Your task to perform on an android device: Is it going to rain tomorrow? Image 0: 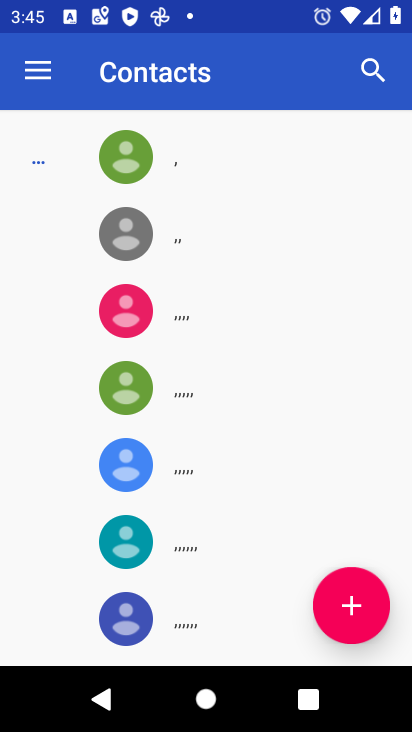
Step 0: press home button
Your task to perform on an android device: Is it going to rain tomorrow? Image 1: 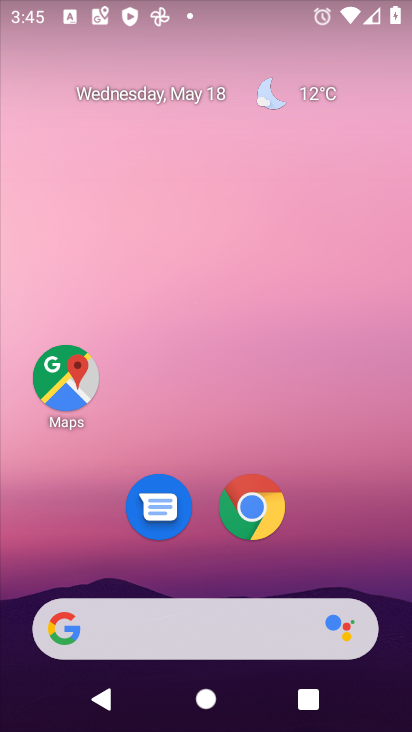
Step 1: click (306, 90)
Your task to perform on an android device: Is it going to rain tomorrow? Image 2: 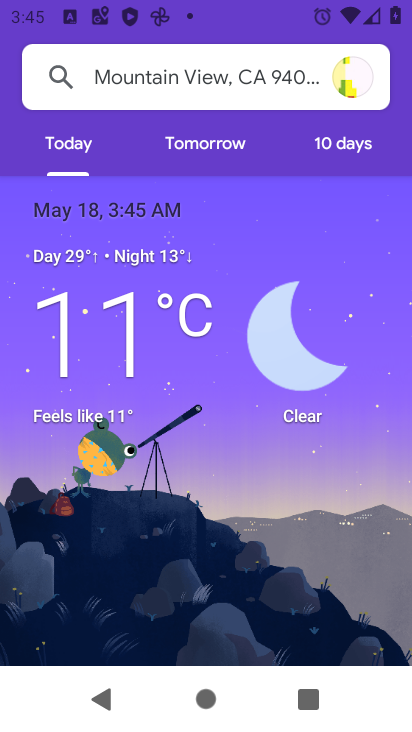
Step 2: click (216, 144)
Your task to perform on an android device: Is it going to rain tomorrow? Image 3: 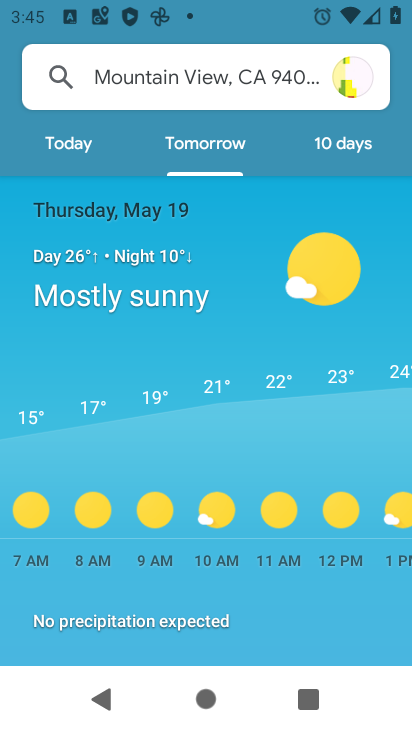
Step 3: task complete